Your task to perform on an android device: open device folders in google photos Image 0: 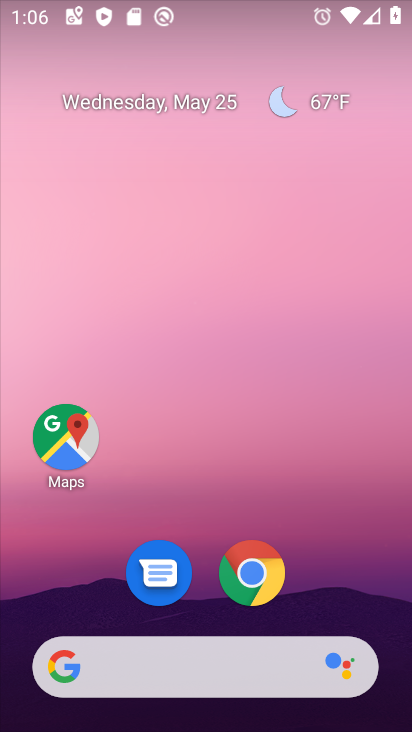
Step 0: drag from (79, 607) to (187, 99)
Your task to perform on an android device: open device folders in google photos Image 1: 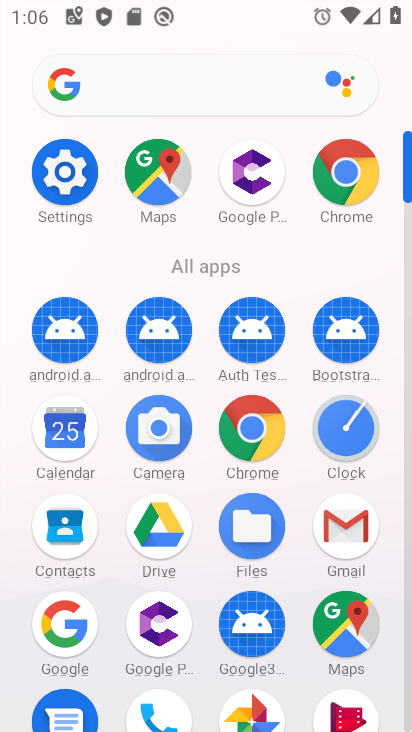
Step 1: drag from (217, 609) to (232, 420)
Your task to perform on an android device: open device folders in google photos Image 2: 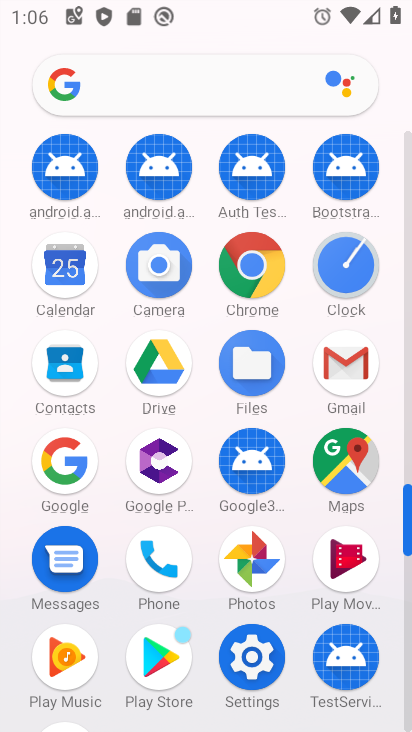
Step 2: click (266, 568)
Your task to perform on an android device: open device folders in google photos Image 3: 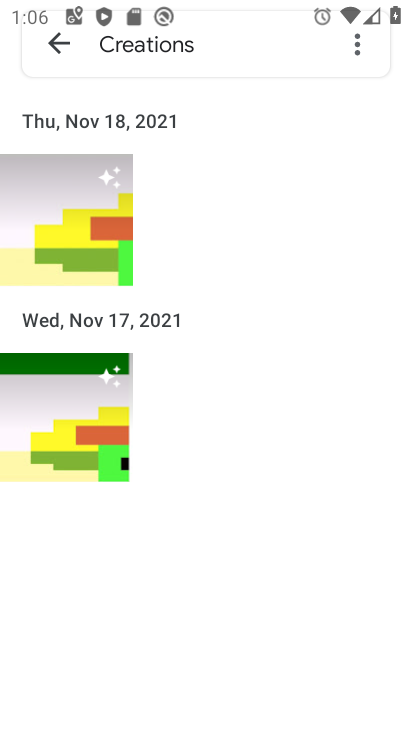
Step 3: click (41, 44)
Your task to perform on an android device: open device folders in google photos Image 4: 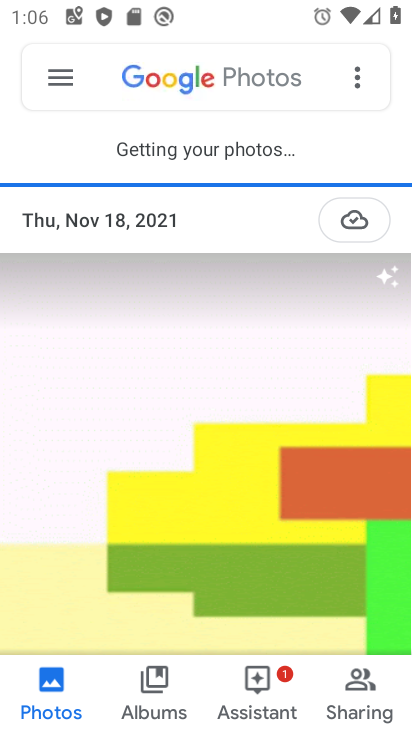
Step 4: click (52, 97)
Your task to perform on an android device: open device folders in google photos Image 5: 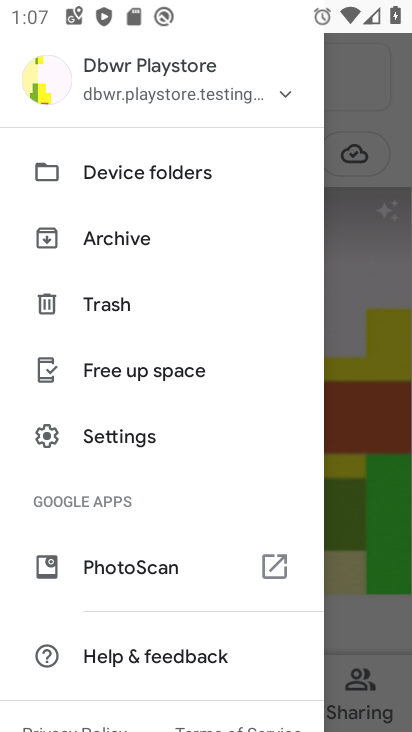
Step 5: click (111, 175)
Your task to perform on an android device: open device folders in google photos Image 6: 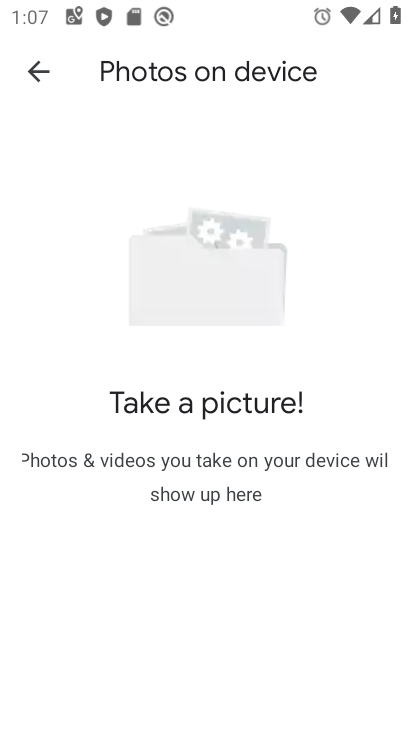
Step 6: task complete